Your task to perform on an android device: Find coffee shops on Maps Image 0: 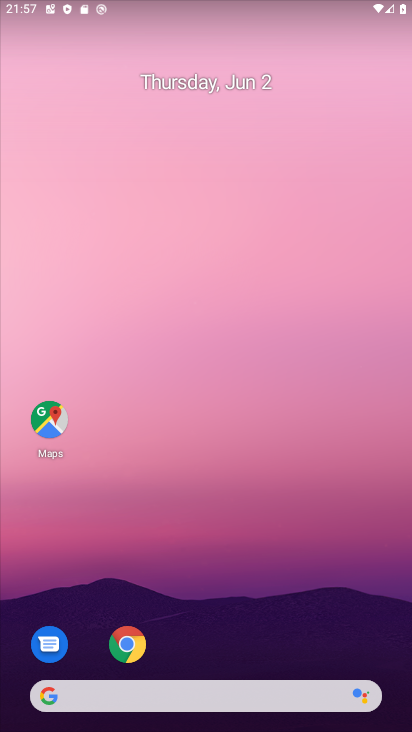
Step 0: click (47, 428)
Your task to perform on an android device: Find coffee shops on Maps Image 1: 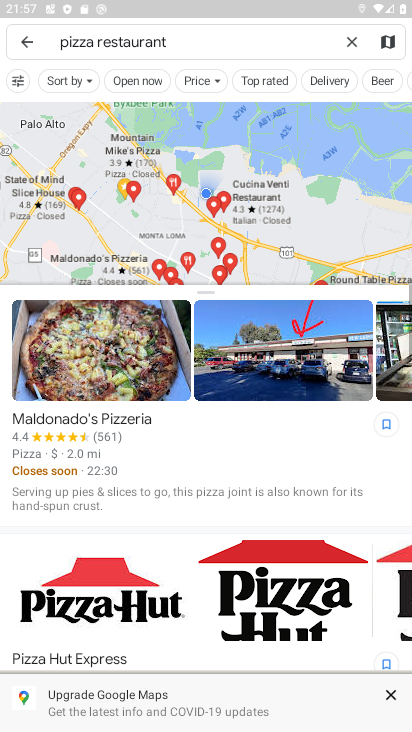
Step 1: click (352, 38)
Your task to perform on an android device: Find coffee shops on Maps Image 2: 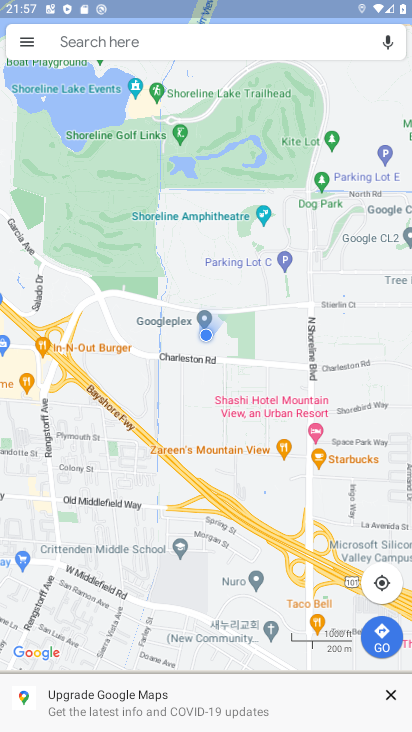
Step 2: click (185, 43)
Your task to perform on an android device: Find coffee shops on Maps Image 3: 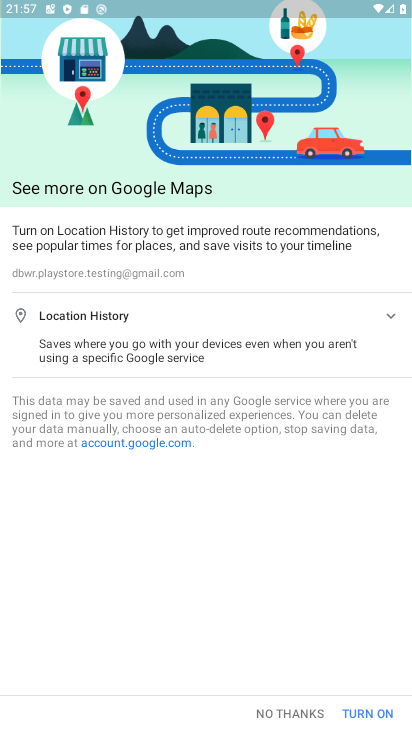
Step 3: click (281, 721)
Your task to perform on an android device: Find coffee shops on Maps Image 4: 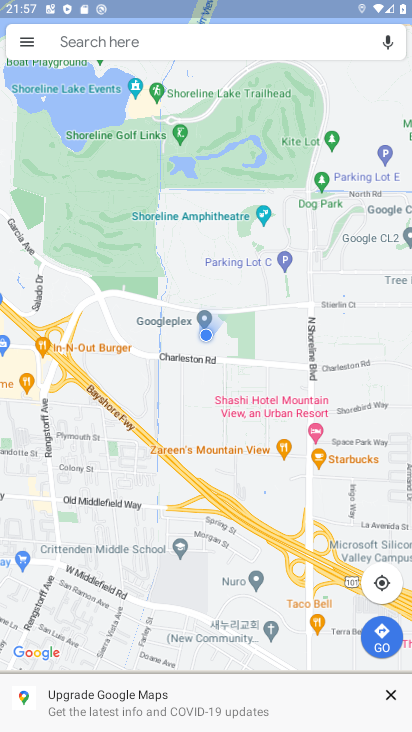
Step 4: click (119, 44)
Your task to perform on an android device: Find coffee shops on Maps Image 5: 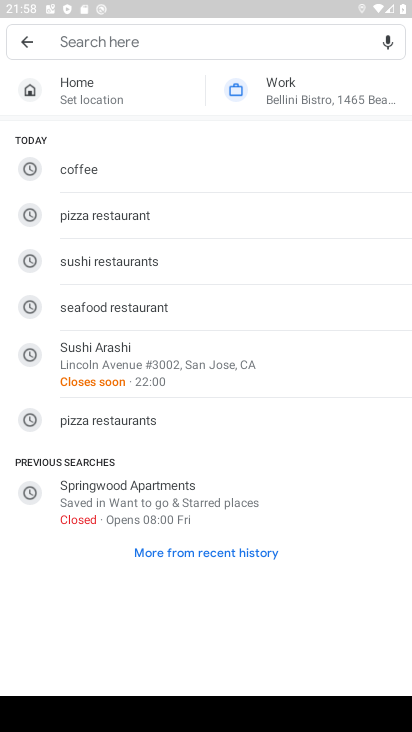
Step 5: type "coffee shops"
Your task to perform on an android device: Find coffee shops on Maps Image 6: 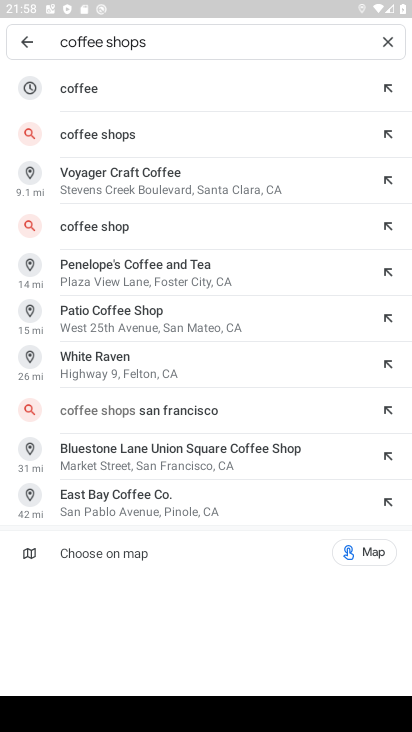
Step 6: click (116, 136)
Your task to perform on an android device: Find coffee shops on Maps Image 7: 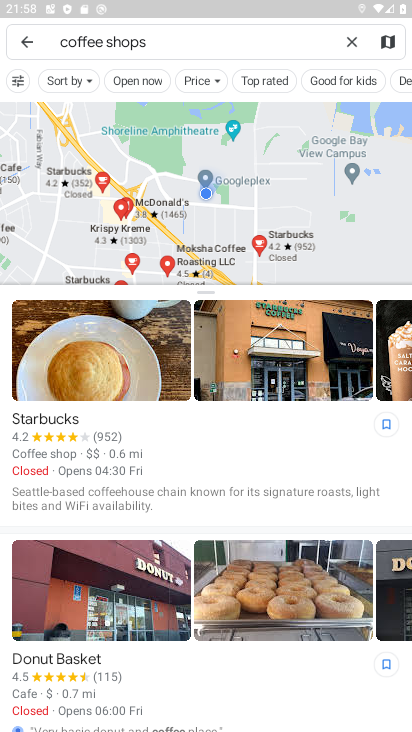
Step 7: task complete